Your task to perform on an android device: Show me recent news Image 0: 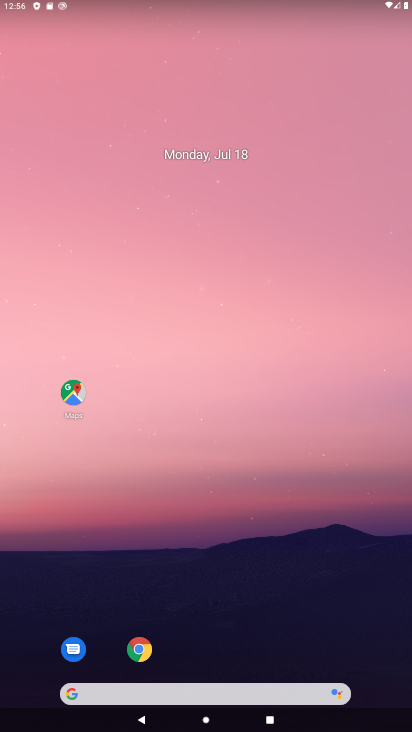
Step 0: click (204, 684)
Your task to perform on an android device: Show me recent news Image 1: 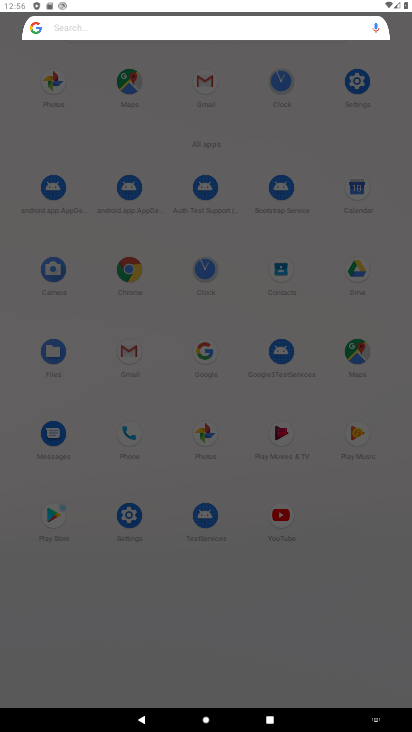
Step 1: click (194, 356)
Your task to perform on an android device: Show me recent news Image 2: 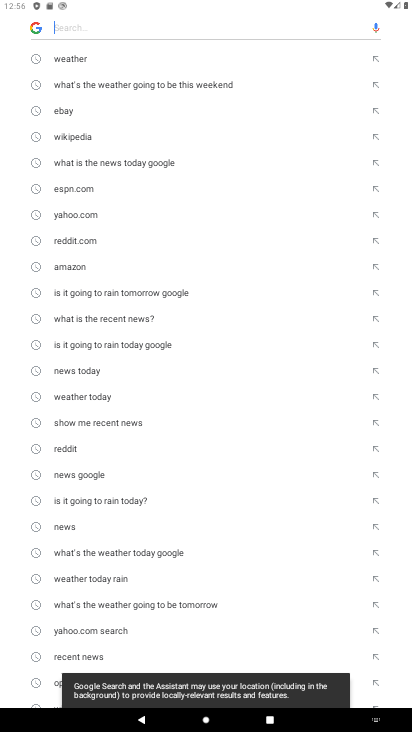
Step 2: click (96, 663)
Your task to perform on an android device: Show me recent news Image 3: 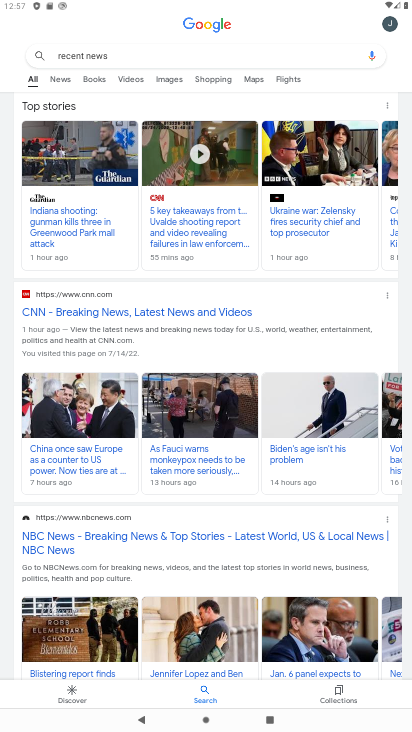
Step 3: task complete